Your task to perform on an android device: Search for pizza restaurants on Maps Image 0: 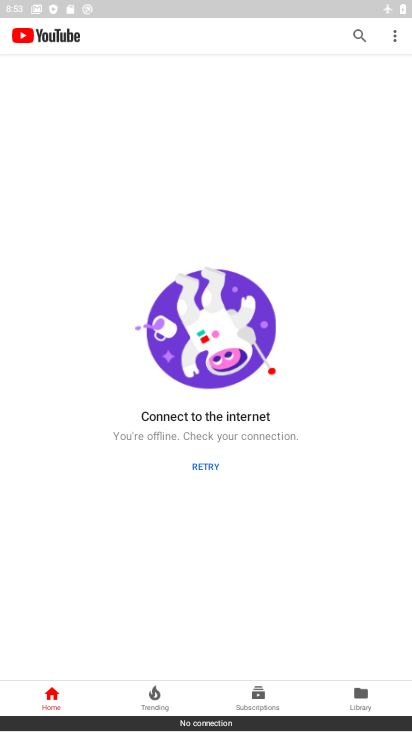
Step 0: press home button
Your task to perform on an android device: Search for pizza restaurants on Maps Image 1: 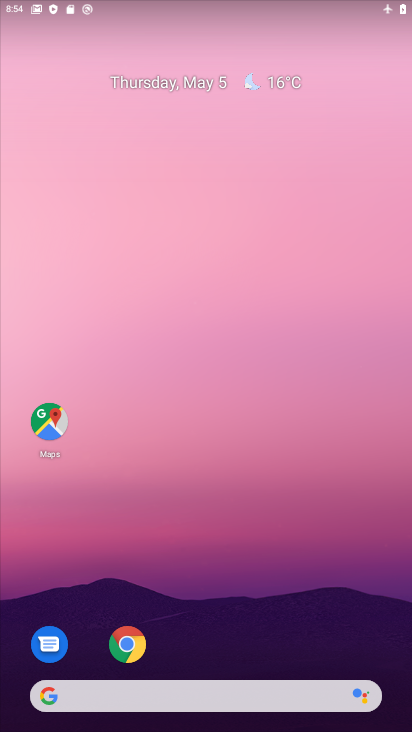
Step 1: drag from (361, 585) to (333, 85)
Your task to perform on an android device: Search for pizza restaurants on Maps Image 2: 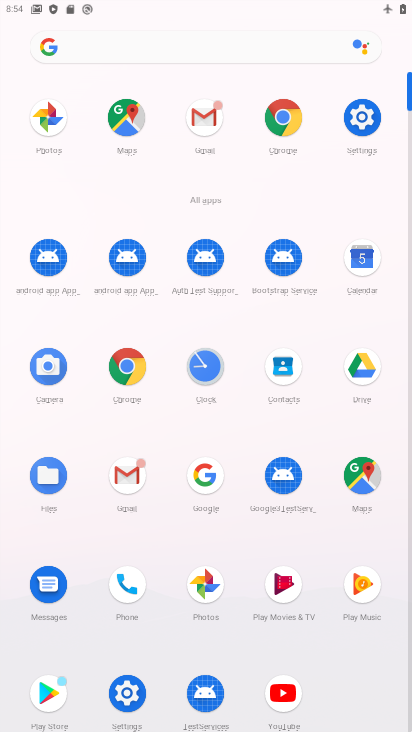
Step 2: click (129, 128)
Your task to perform on an android device: Search for pizza restaurants on Maps Image 3: 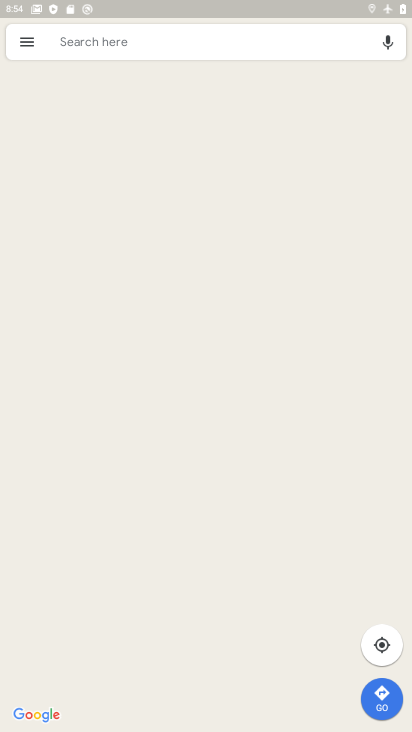
Step 3: click (96, 37)
Your task to perform on an android device: Search for pizza restaurants on Maps Image 4: 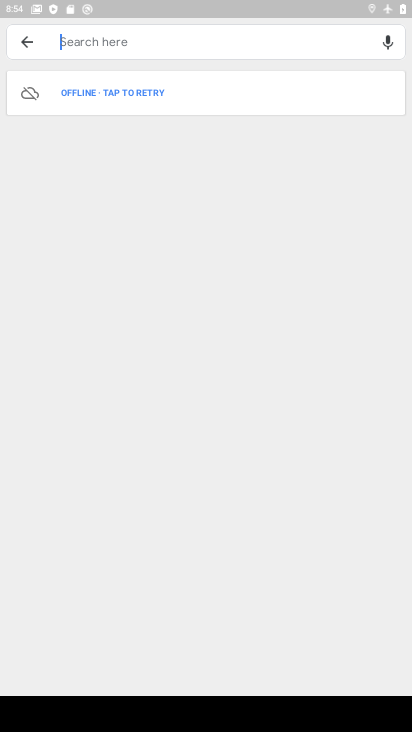
Step 4: type "pizza restaurants "
Your task to perform on an android device: Search for pizza restaurants on Maps Image 5: 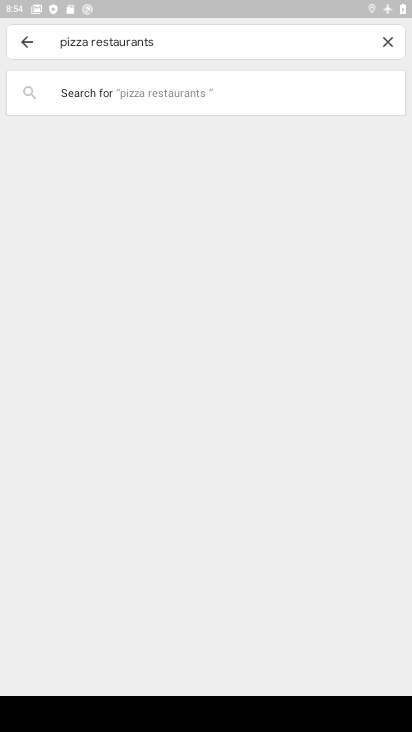
Step 5: click (73, 102)
Your task to perform on an android device: Search for pizza restaurants on Maps Image 6: 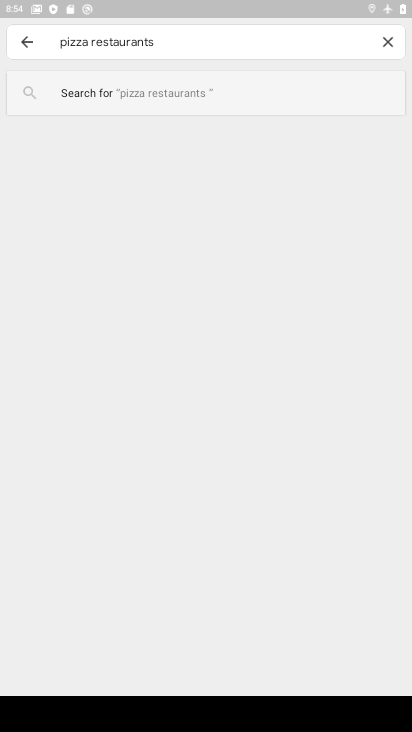
Step 6: click (166, 91)
Your task to perform on an android device: Search for pizza restaurants on Maps Image 7: 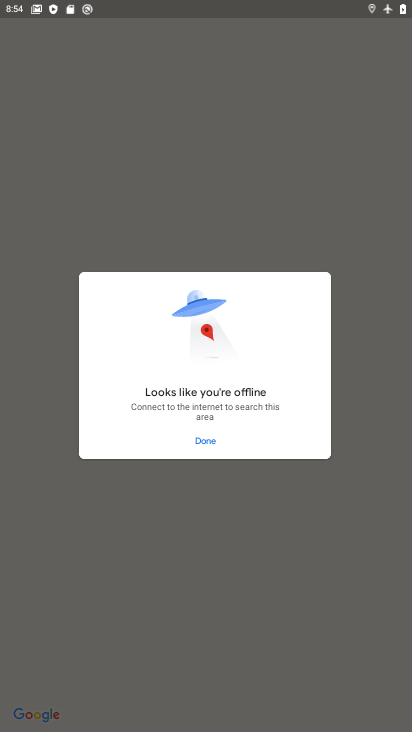
Step 7: task complete